Your task to perform on an android device: What's the weather going to be this weekend? Image 0: 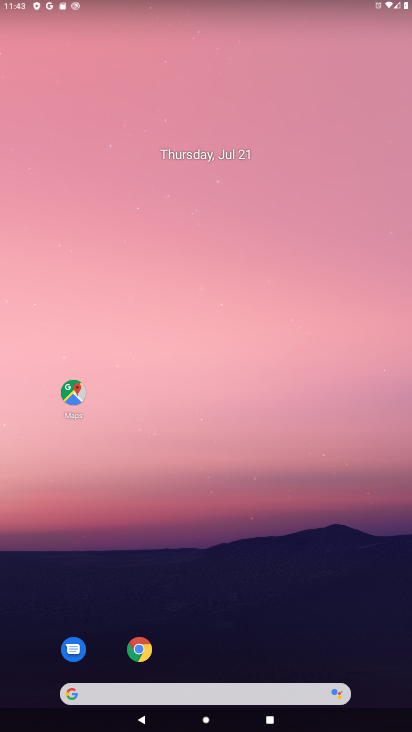
Step 0: drag from (270, 552) to (212, 142)
Your task to perform on an android device: What's the weather going to be this weekend? Image 1: 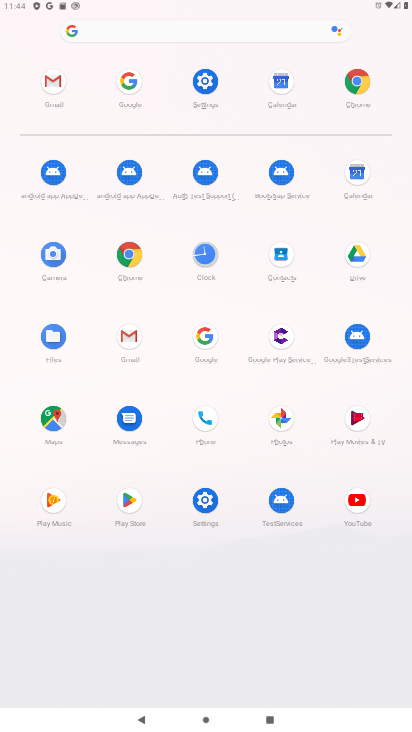
Step 1: click (129, 257)
Your task to perform on an android device: What's the weather going to be this weekend? Image 2: 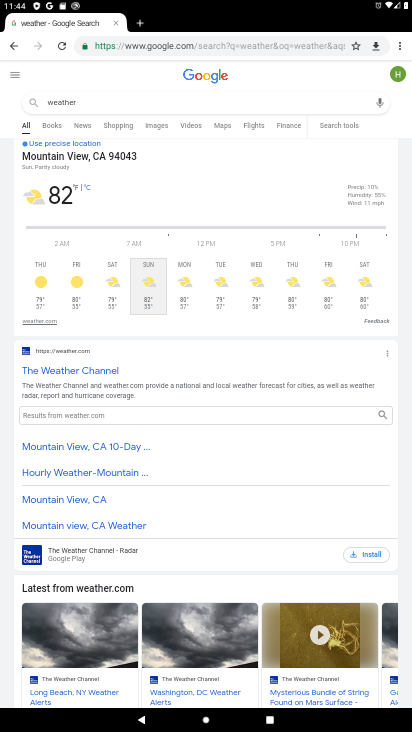
Step 2: task complete